Your task to perform on an android device: Open Wikipedia Image 0: 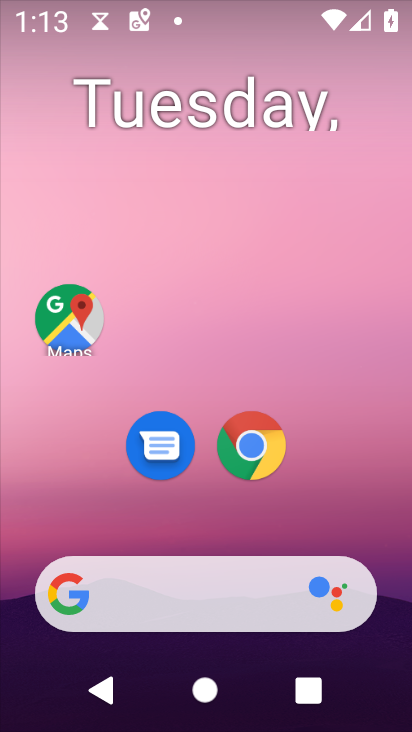
Step 0: drag from (266, 589) to (273, 58)
Your task to perform on an android device: Open Wikipedia Image 1: 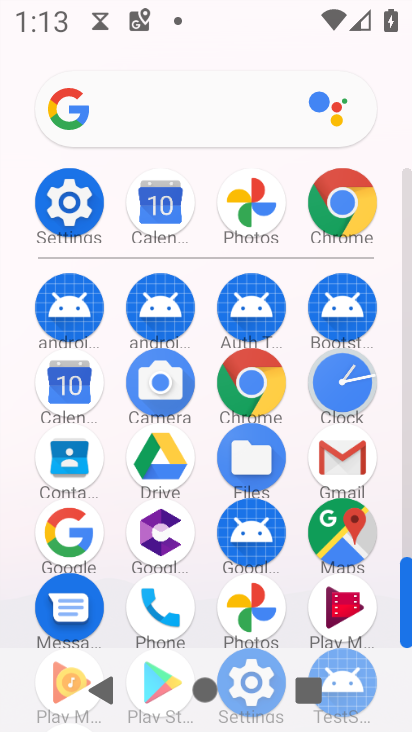
Step 1: click (266, 400)
Your task to perform on an android device: Open Wikipedia Image 2: 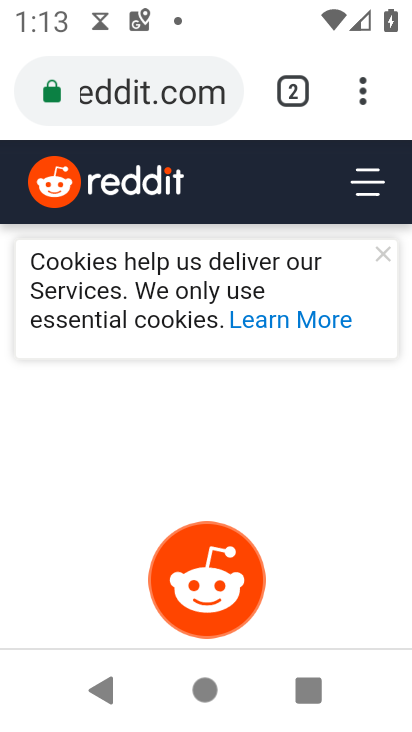
Step 2: click (206, 110)
Your task to perform on an android device: Open Wikipedia Image 3: 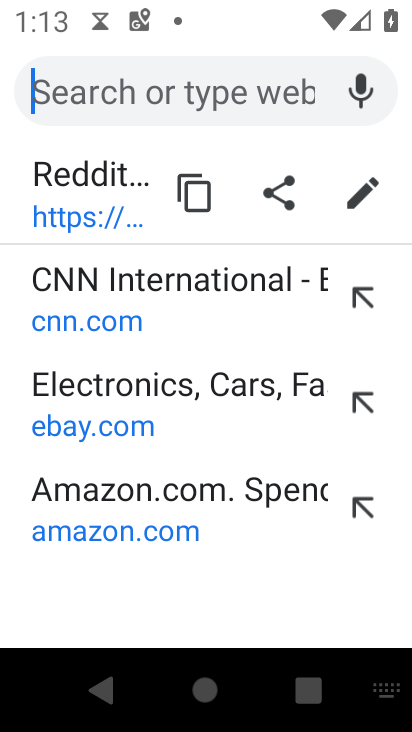
Step 3: type "wikipedia"
Your task to perform on an android device: Open Wikipedia Image 4: 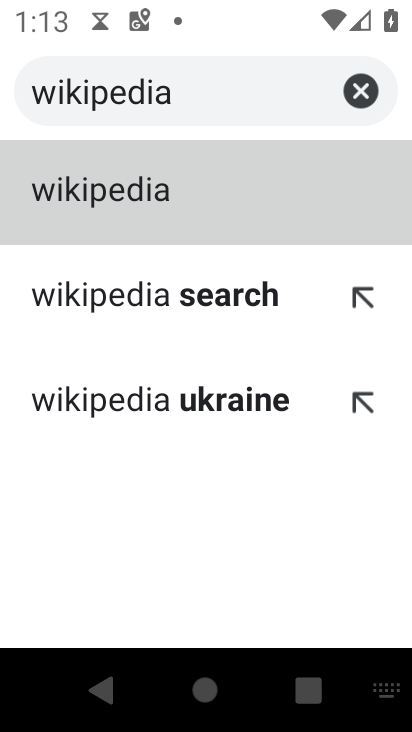
Step 4: click (189, 194)
Your task to perform on an android device: Open Wikipedia Image 5: 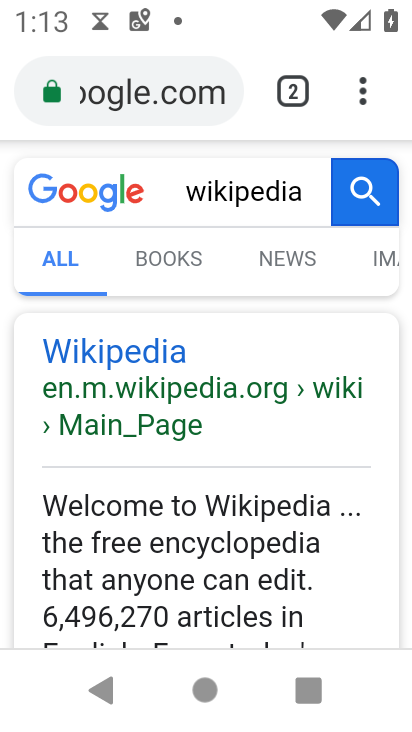
Step 5: task complete